Your task to perform on an android device: Open sound settings Image 0: 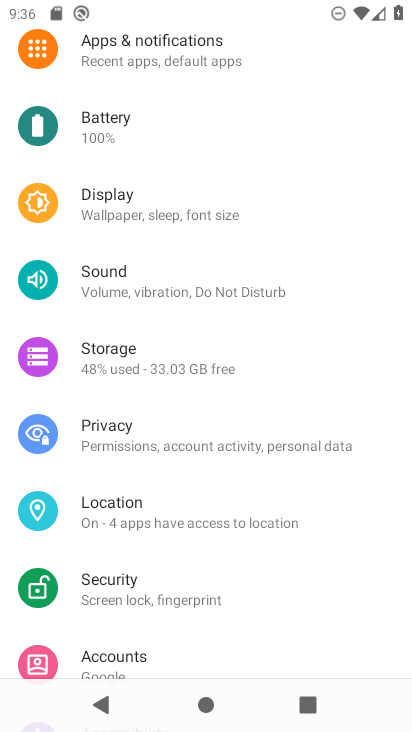
Step 0: click (175, 290)
Your task to perform on an android device: Open sound settings Image 1: 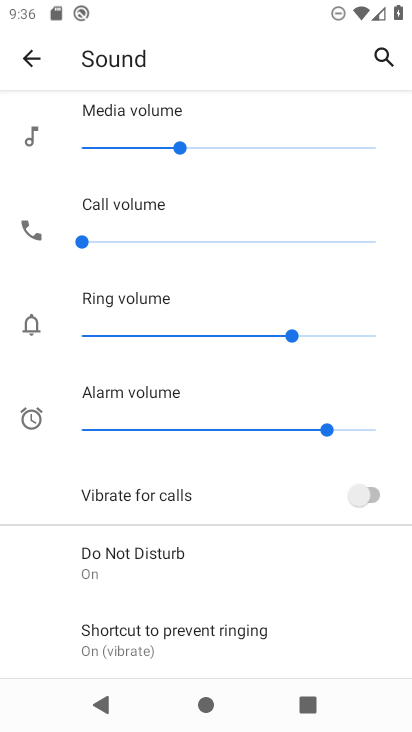
Step 1: task complete